Your task to perform on an android device: see tabs open on other devices in the chrome app Image 0: 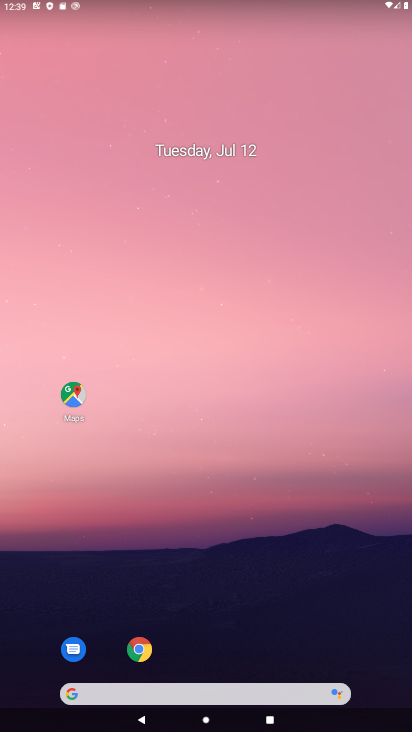
Step 0: drag from (352, 677) to (177, 183)
Your task to perform on an android device: see tabs open on other devices in the chrome app Image 1: 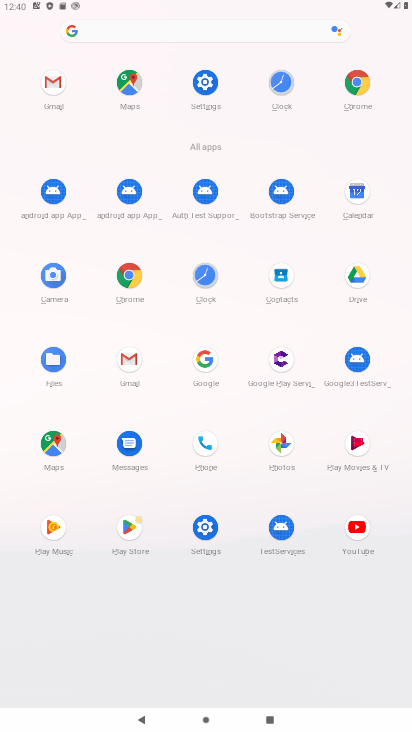
Step 1: click (117, 277)
Your task to perform on an android device: see tabs open on other devices in the chrome app Image 2: 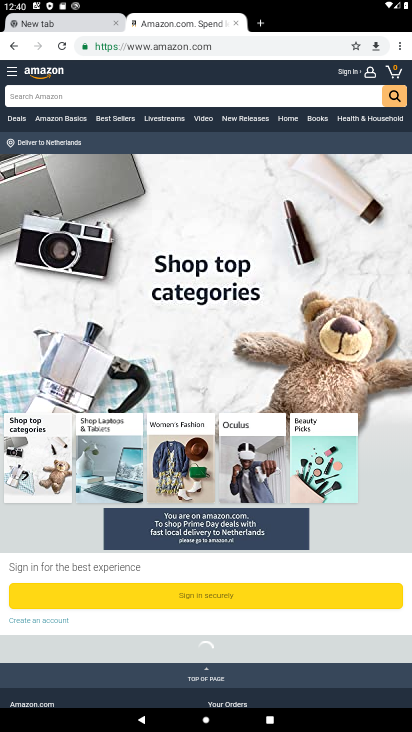
Step 2: task complete